Your task to perform on an android device: set an alarm Image 0: 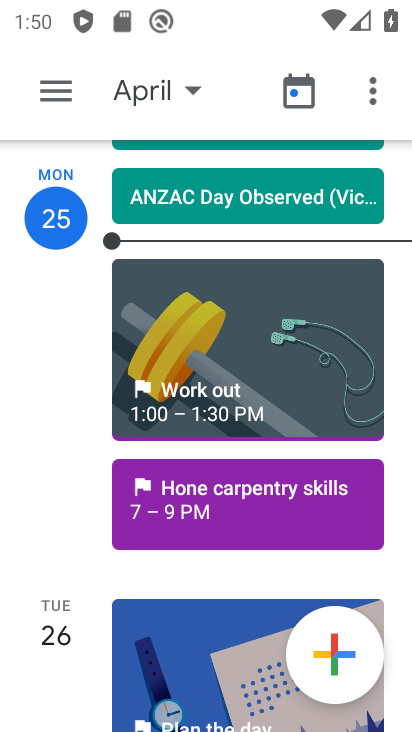
Step 0: press home button
Your task to perform on an android device: set an alarm Image 1: 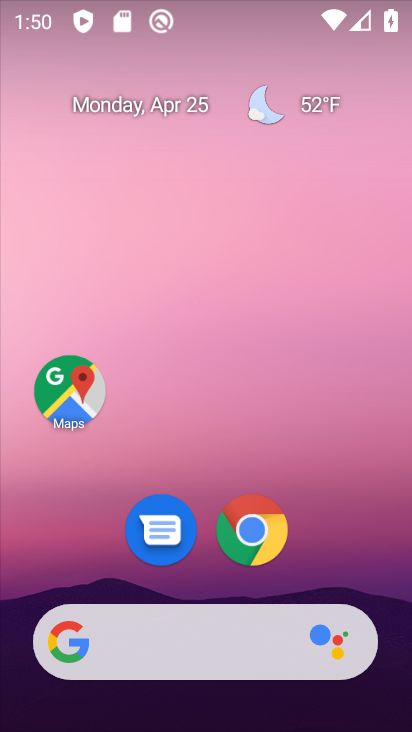
Step 1: drag from (374, 544) to (378, 177)
Your task to perform on an android device: set an alarm Image 2: 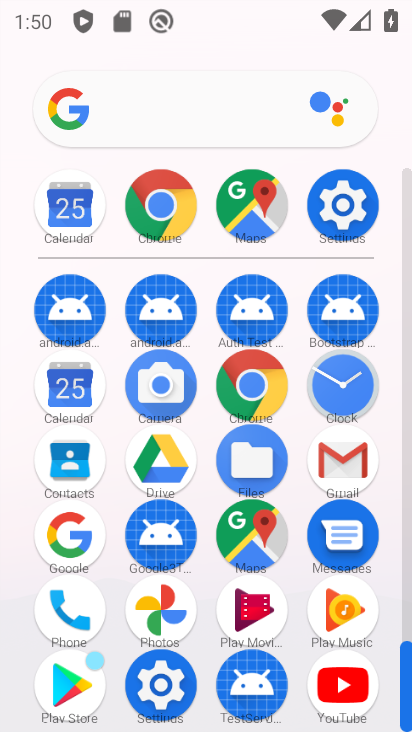
Step 2: drag from (386, 573) to (396, 250)
Your task to perform on an android device: set an alarm Image 3: 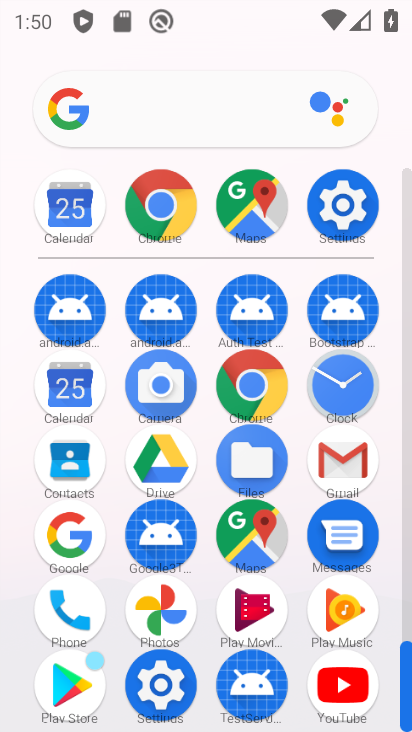
Step 3: click (362, 382)
Your task to perform on an android device: set an alarm Image 4: 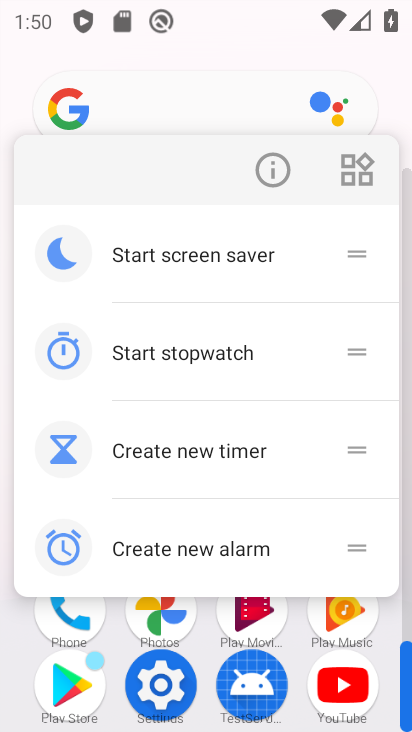
Step 4: click (202, 165)
Your task to perform on an android device: set an alarm Image 5: 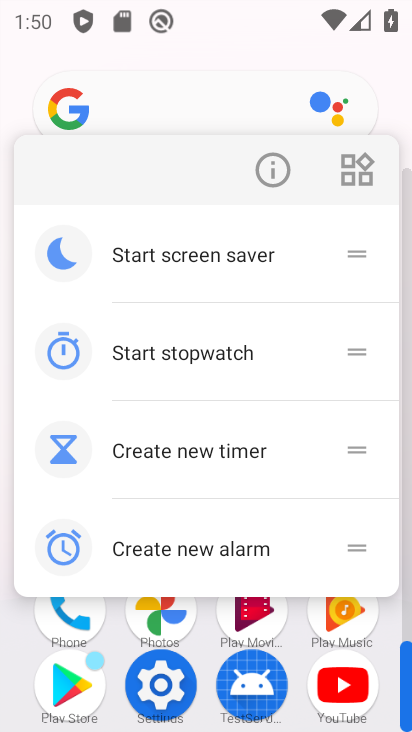
Step 5: click (202, 635)
Your task to perform on an android device: set an alarm Image 6: 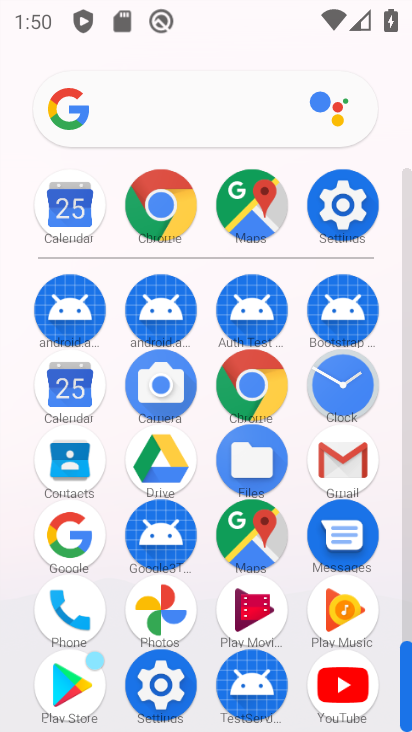
Step 6: click (357, 404)
Your task to perform on an android device: set an alarm Image 7: 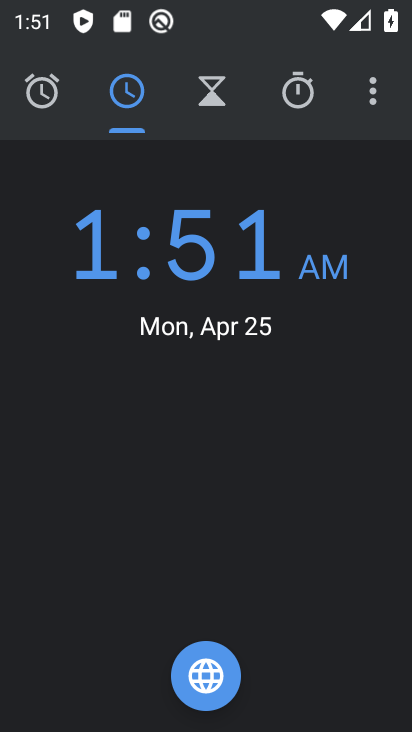
Step 7: click (46, 85)
Your task to perform on an android device: set an alarm Image 8: 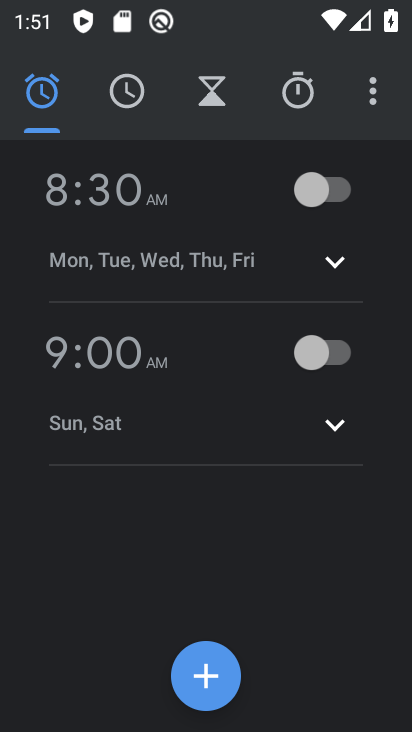
Step 8: click (201, 670)
Your task to perform on an android device: set an alarm Image 9: 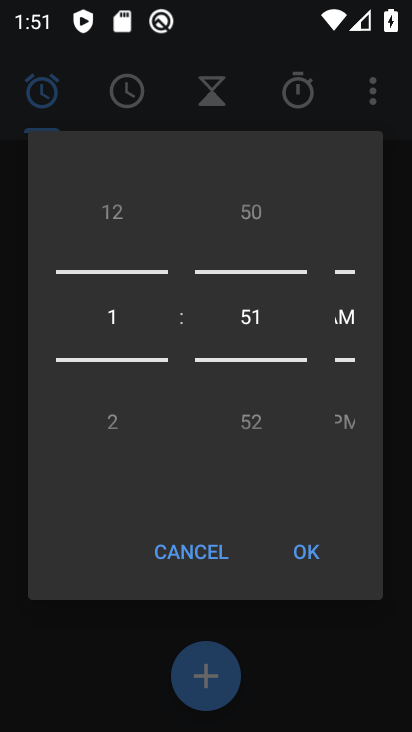
Step 9: click (304, 557)
Your task to perform on an android device: set an alarm Image 10: 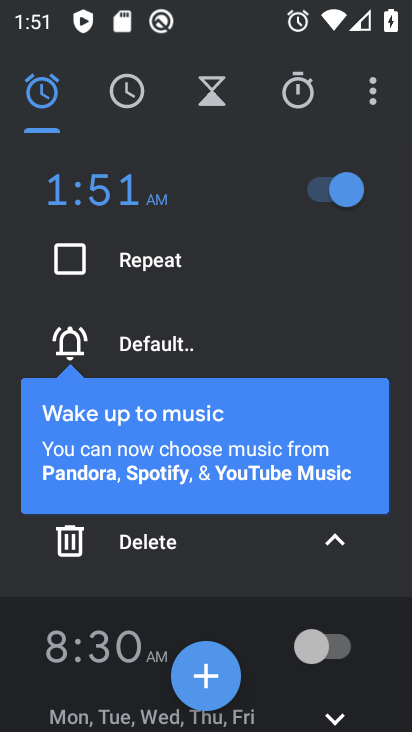
Step 10: task complete